Your task to perform on an android device: Search for sushi restaurants on Maps Image 0: 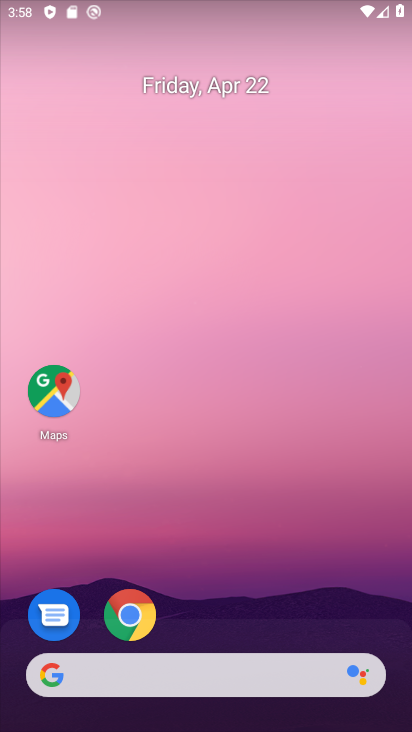
Step 0: drag from (220, 663) to (221, 215)
Your task to perform on an android device: Search for sushi restaurants on Maps Image 1: 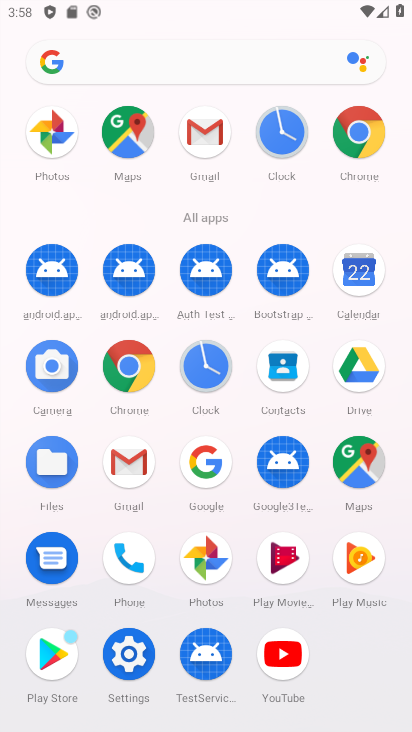
Step 1: click (367, 461)
Your task to perform on an android device: Search for sushi restaurants on Maps Image 2: 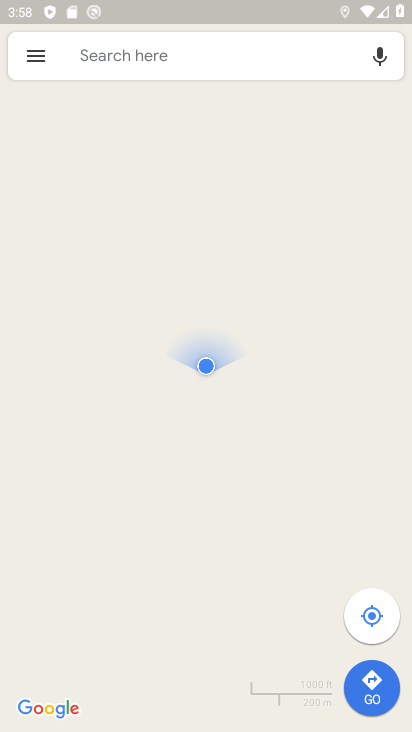
Step 2: click (191, 54)
Your task to perform on an android device: Search for sushi restaurants on Maps Image 3: 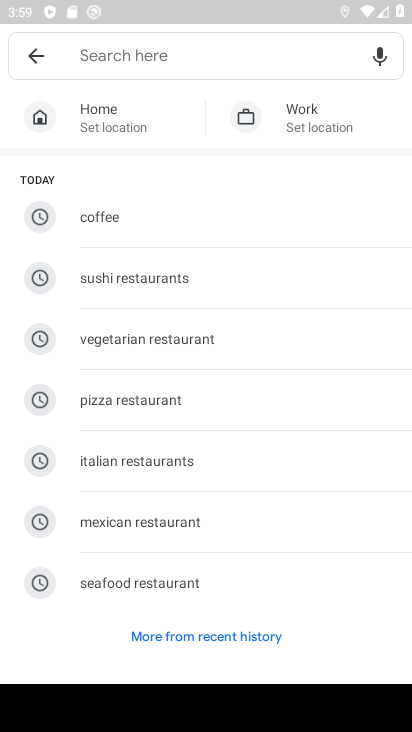
Step 3: type "sushi restaurants"
Your task to perform on an android device: Search for sushi restaurants on Maps Image 4: 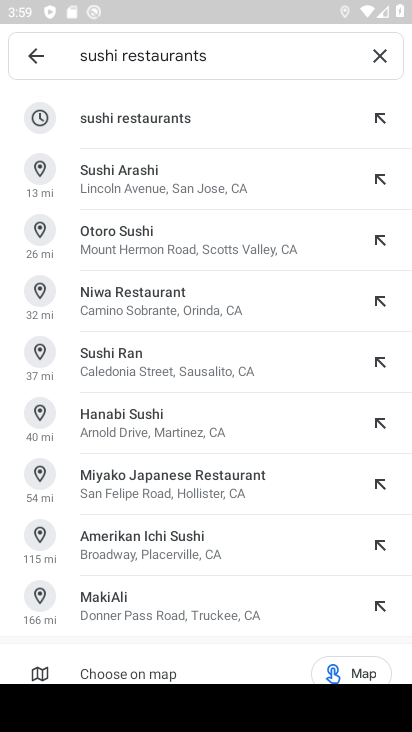
Step 4: click (119, 117)
Your task to perform on an android device: Search for sushi restaurants on Maps Image 5: 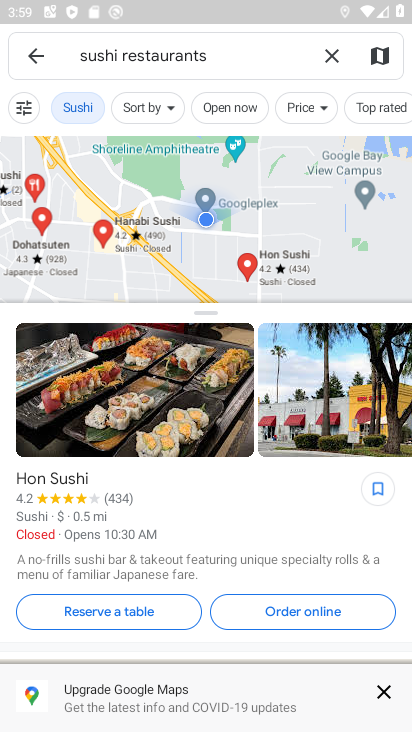
Step 5: task complete